Your task to perform on an android device: Search for vegetarian restaurants on Maps Image 0: 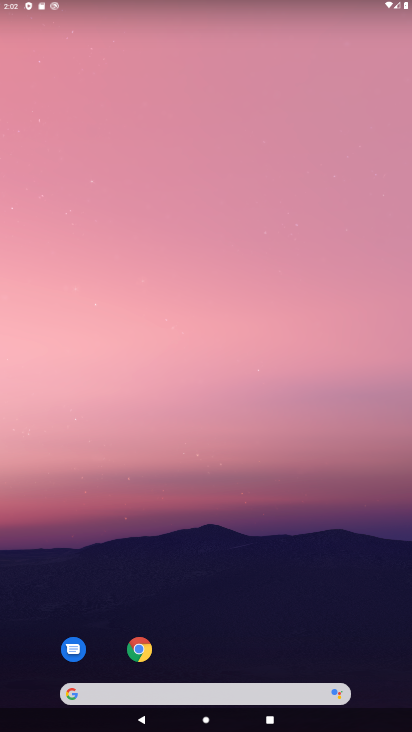
Step 0: drag from (151, 556) to (199, 582)
Your task to perform on an android device: Search for vegetarian restaurants on Maps Image 1: 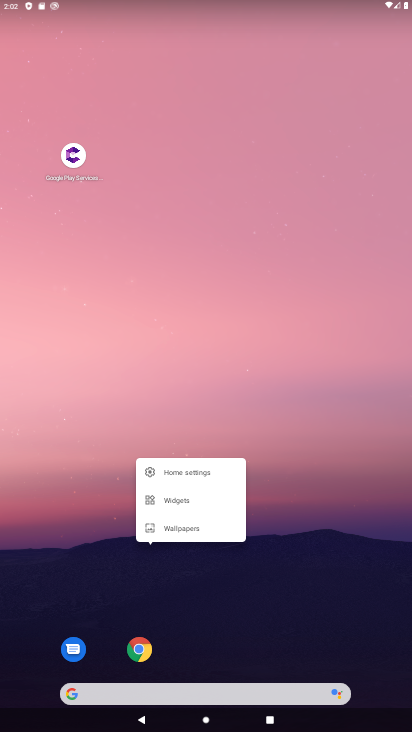
Step 1: click (199, 582)
Your task to perform on an android device: Search for vegetarian restaurants on Maps Image 2: 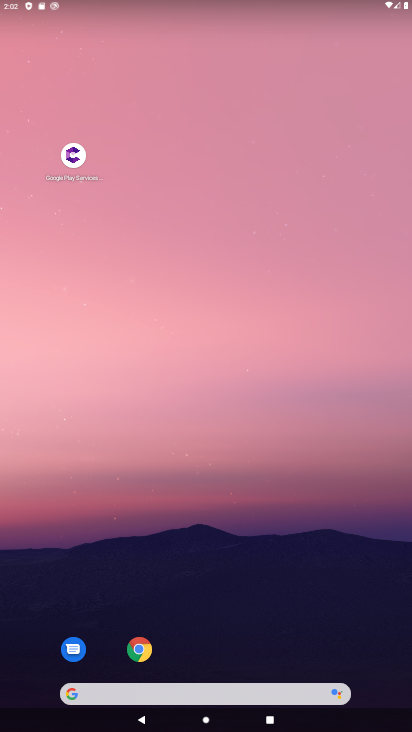
Step 2: drag from (174, 539) to (230, 35)
Your task to perform on an android device: Search for vegetarian restaurants on Maps Image 3: 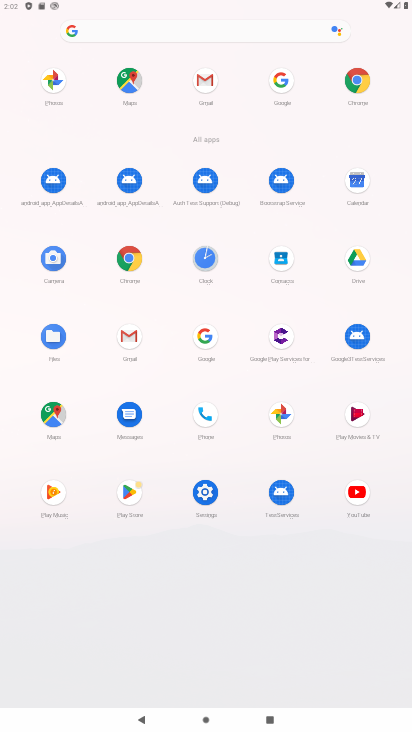
Step 3: click (50, 434)
Your task to perform on an android device: Search for vegetarian restaurants on Maps Image 4: 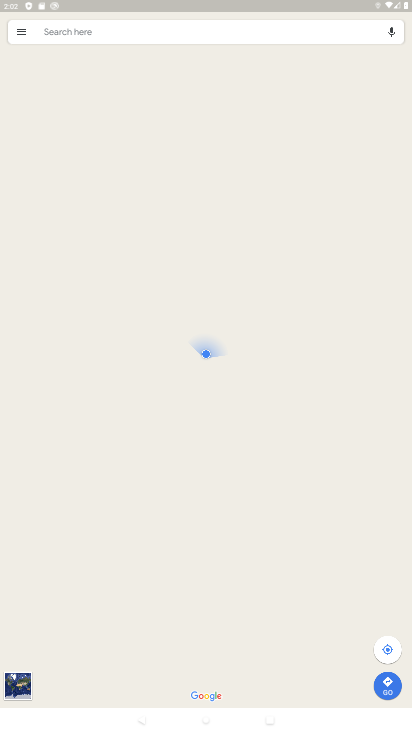
Step 4: click (204, 33)
Your task to perform on an android device: Search for vegetarian restaurants on Maps Image 5: 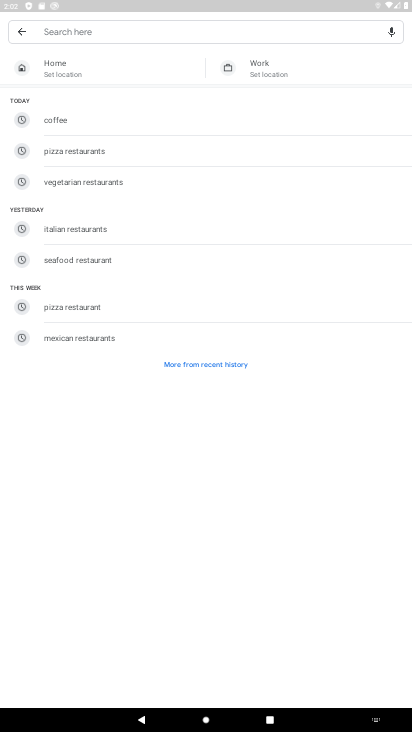
Step 5: type "vegetarian restaurants"
Your task to perform on an android device: Search for vegetarian restaurants on Maps Image 6: 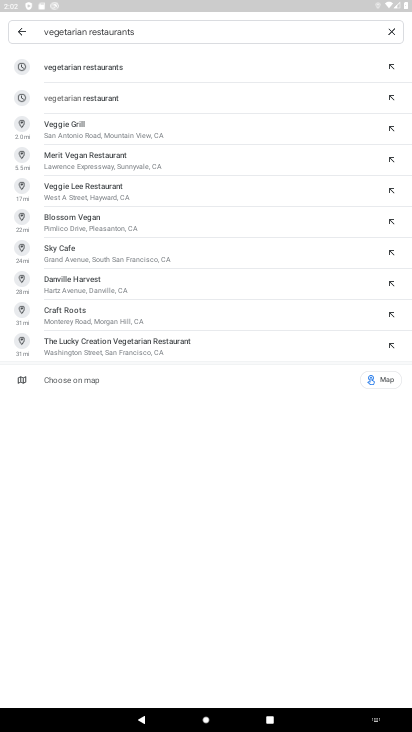
Step 6: click (96, 63)
Your task to perform on an android device: Search for vegetarian restaurants on Maps Image 7: 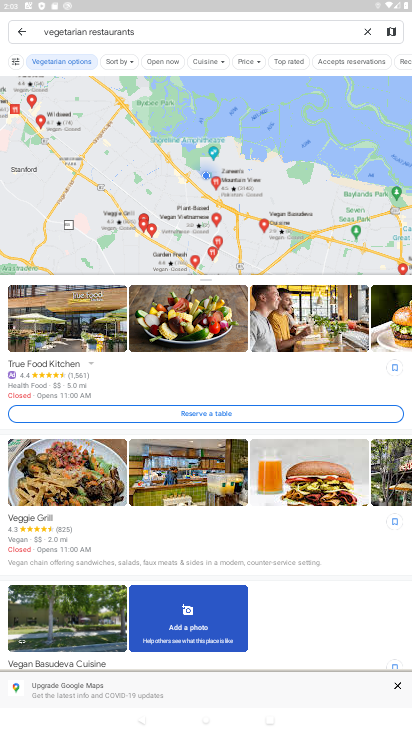
Step 7: task complete